Your task to perform on an android device: snooze an email in the gmail app Image 0: 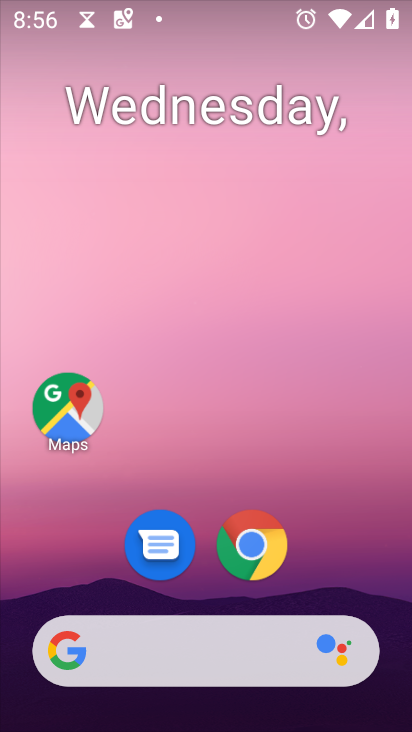
Step 0: press home button
Your task to perform on an android device: snooze an email in the gmail app Image 1: 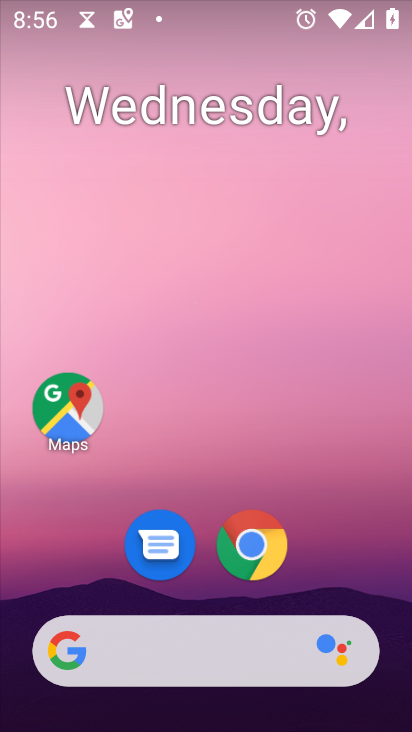
Step 1: drag from (188, 667) to (354, 104)
Your task to perform on an android device: snooze an email in the gmail app Image 2: 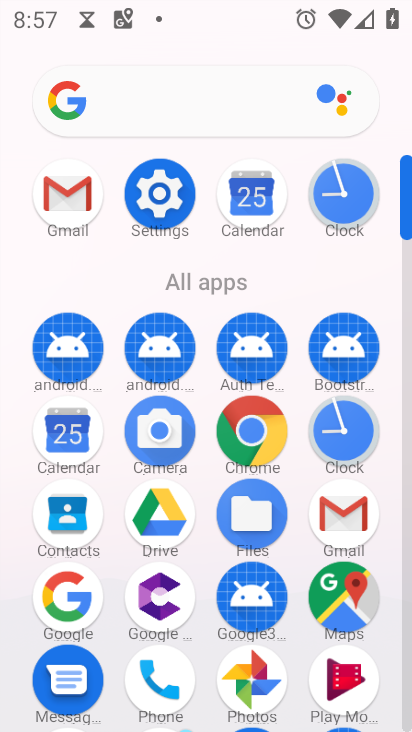
Step 2: click (65, 200)
Your task to perform on an android device: snooze an email in the gmail app Image 3: 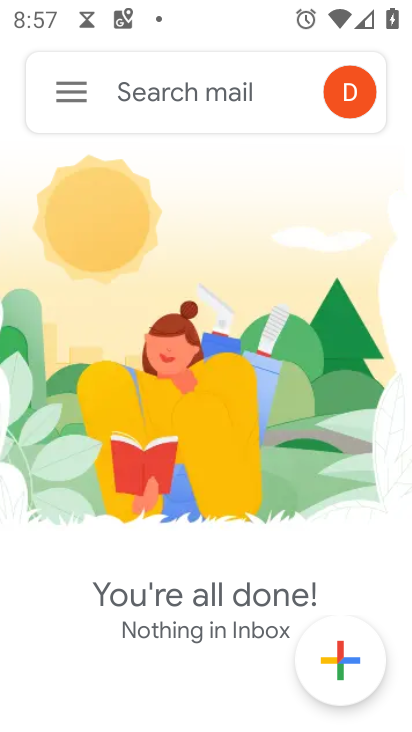
Step 3: click (76, 95)
Your task to perform on an android device: snooze an email in the gmail app Image 4: 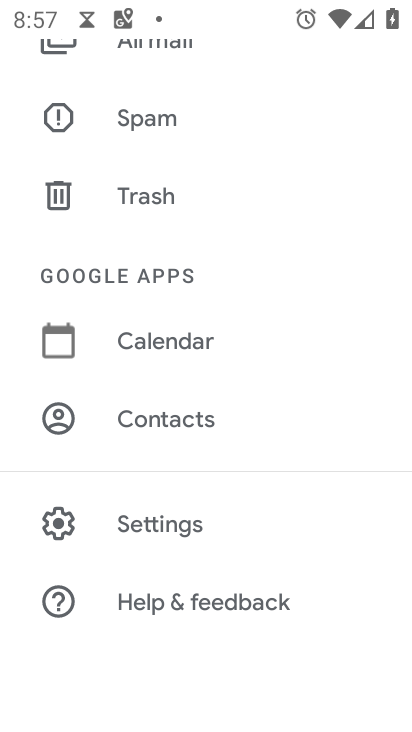
Step 4: drag from (274, 115) to (258, 643)
Your task to perform on an android device: snooze an email in the gmail app Image 5: 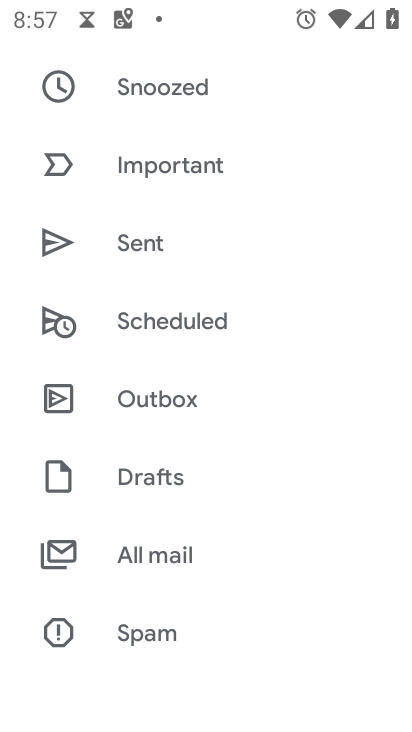
Step 5: click (166, 553)
Your task to perform on an android device: snooze an email in the gmail app Image 6: 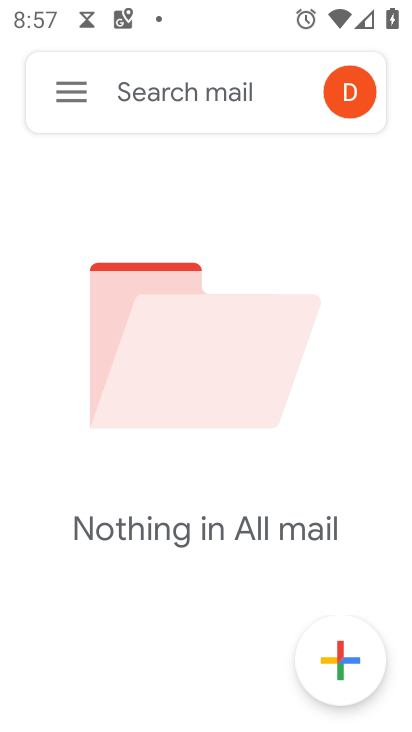
Step 6: task complete